Your task to perform on an android device: allow cookies in the chrome app Image 0: 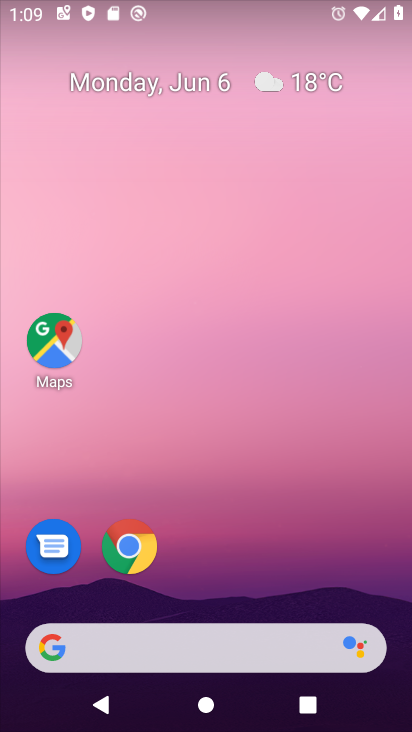
Step 0: click (125, 556)
Your task to perform on an android device: allow cookies in the chrome app Image 1: 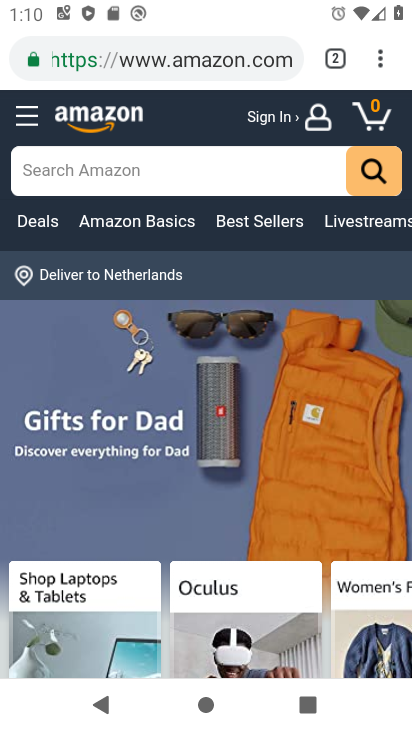
Step 1: click (376, 57)
Your task to perform on an android device: allow cookies in the chrome app Image 2: 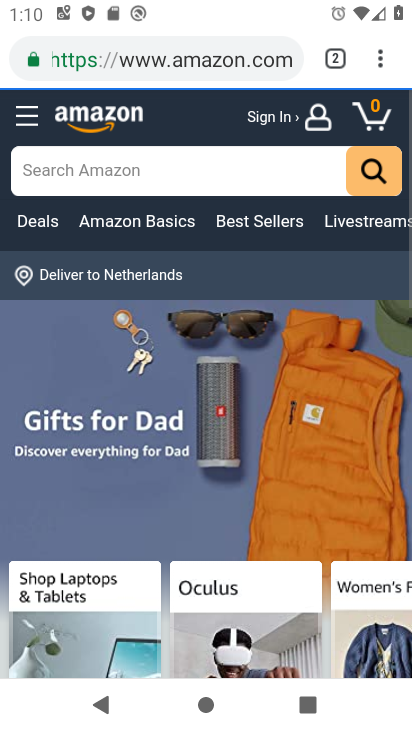
Step 2: drag from (375, 56) to (249, 558)
Your task to perform on an android device: allow cookies in the chrome app Image 3: 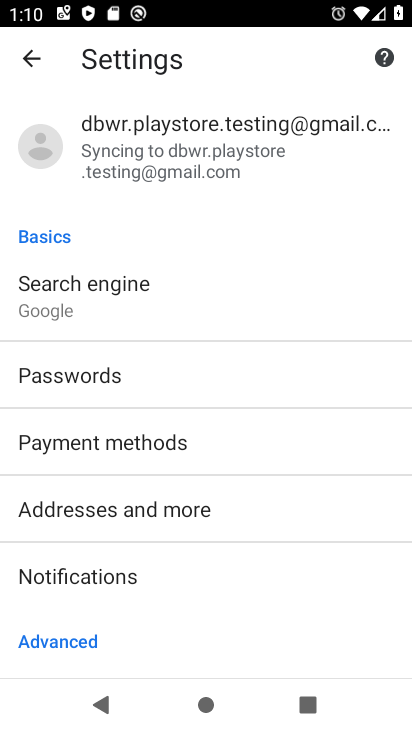
Step 3: drag from (206, 620) to (206, 230)
Your task to perform on an android device: allow cookies in the chrome app Image 4: 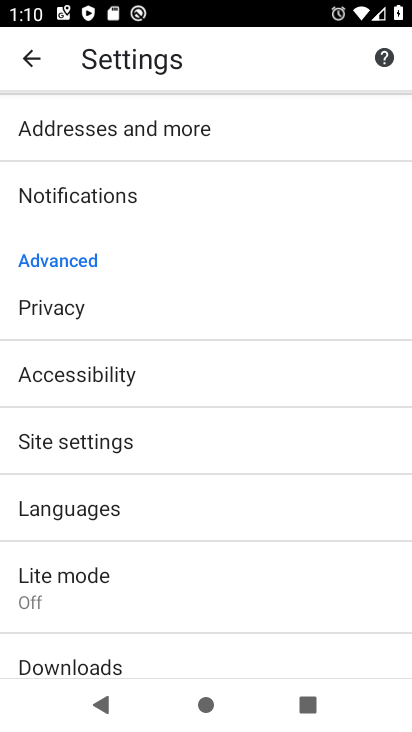
Step 4: click (92, 445)
Your task to perform on an android device: allow cookies in the chrome app Image 5: 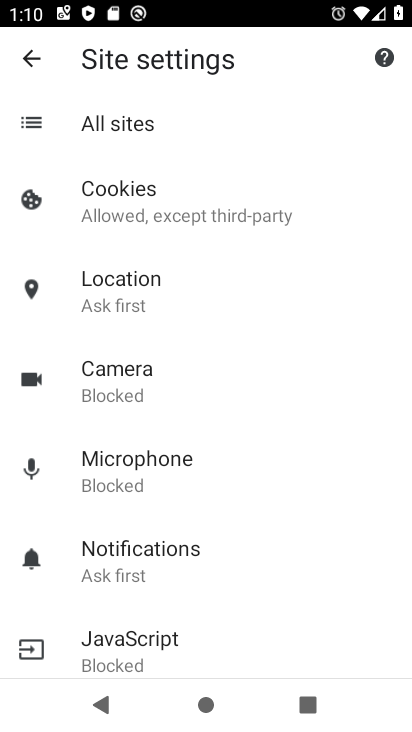
Step 5: click (130, 192)
Your task to perform on an android device: allow cookies in the chrome app Image 6: 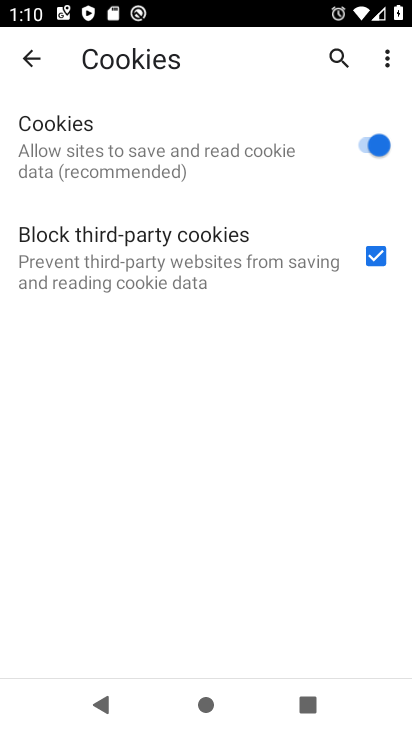
Step 6: task complete